Your task to perform on an android device: turn pop-ups on in chrome Image 0: 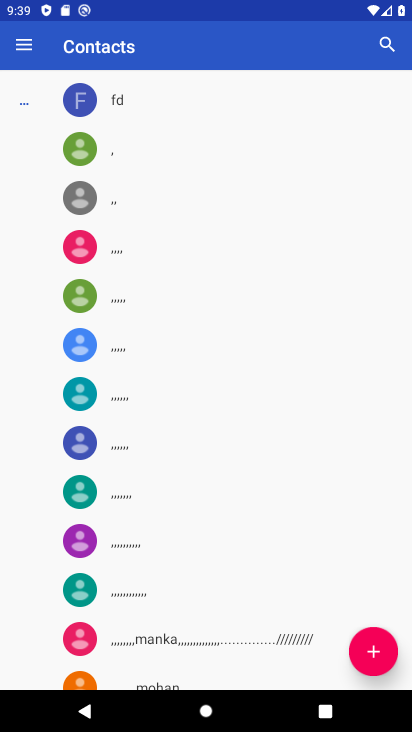
Step 0: press home button
Your task to perform on an android device: turn pop-ups on in chrome Image 1: 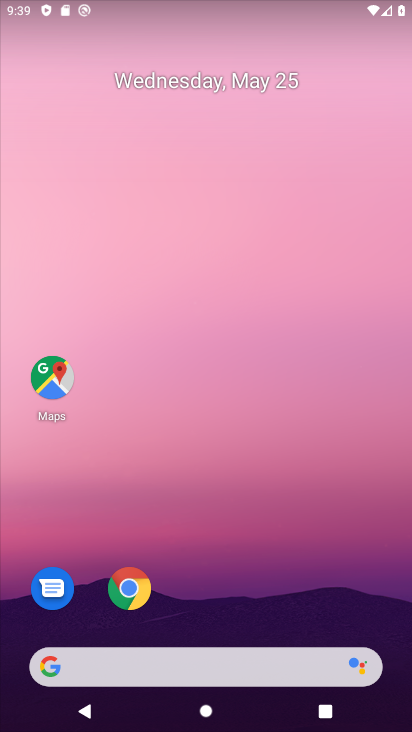
Step 1: click (119, 586)
Your task to perform on an android device: turn pop-ups on in chrome Image 2: 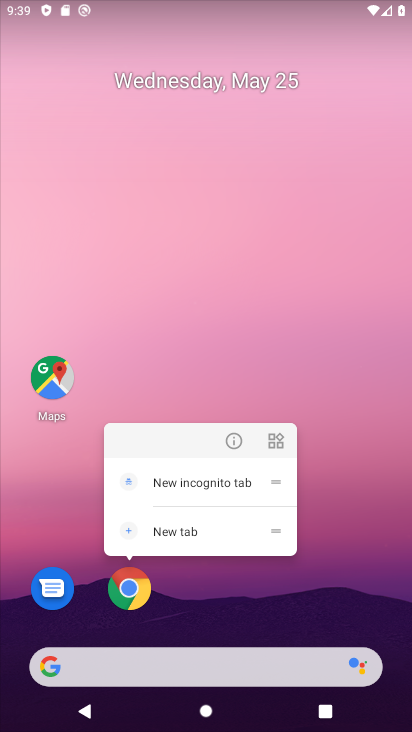
Step 2: click (125, 569)
Your task to perform on an android device: turn pop-ups on in chrome Image 3: 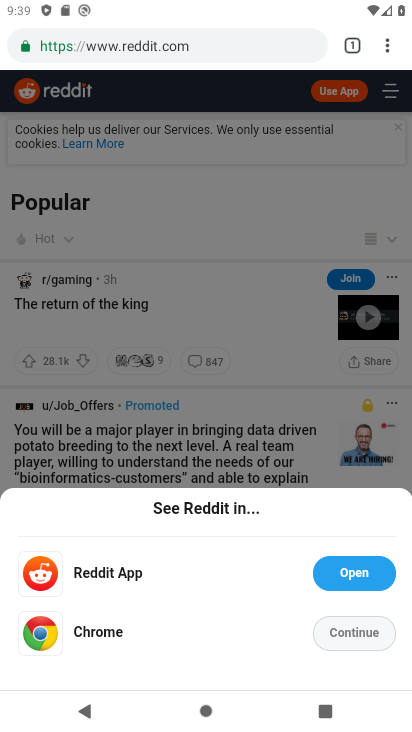
Step 3: click (381, 41)
Your task to perform on an android device: turn pop-ups on in chrome Image 4: 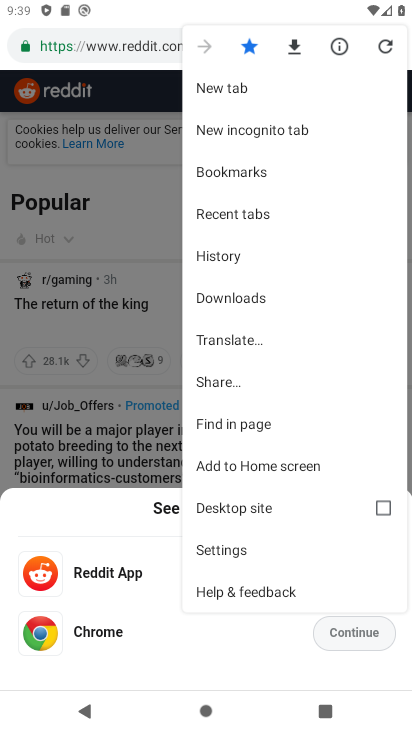
Step 4: click (259, 551)
Your task to perform on an android device: turn pop-ups on in chrome Image 5: 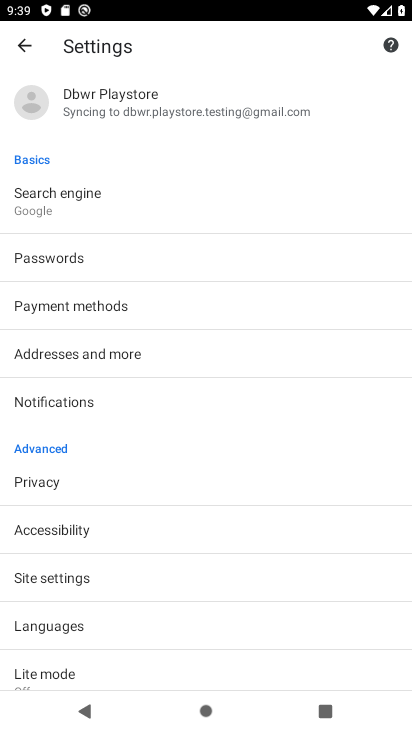
Step 5: click (100, 567)
Your task to perform on an android device: turn pop-ups on in chrome Image 6: 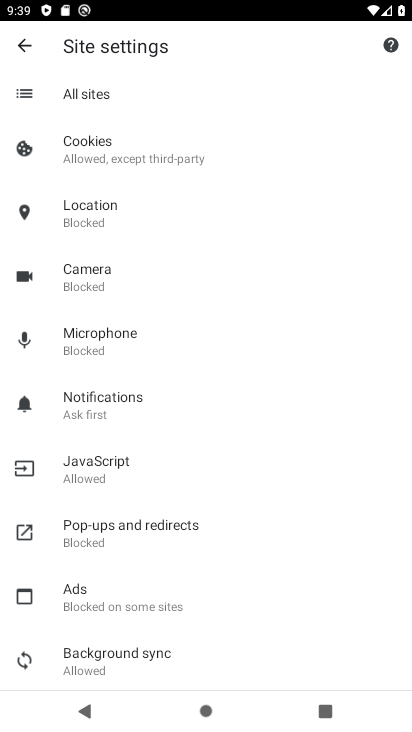
Step 6: click (125, 552)
Your task to perform on an android device: turn pop-ups on in chrome Image 7: 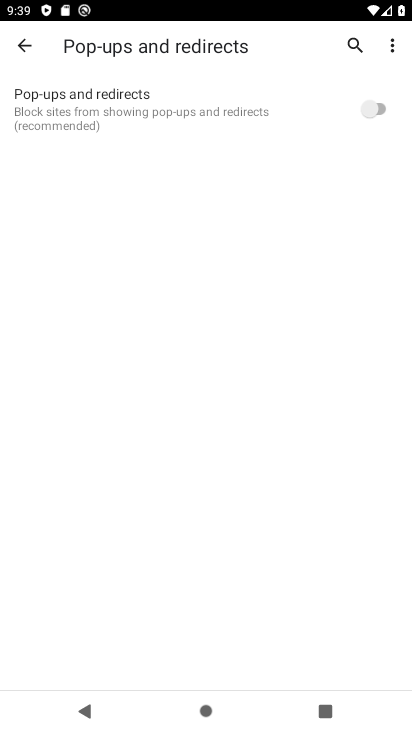
Step 7: click (365, 114)
Your task to perform on an android device: turn pop-ups on in chrome Image 8: 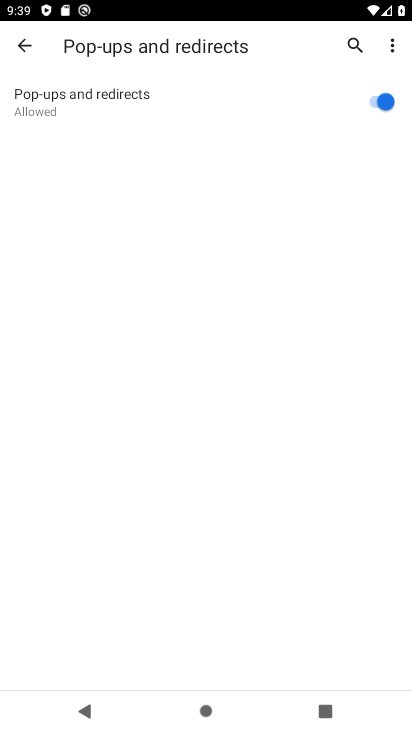
Step 8: task complete